Your task to perform on an android device: turn on bluetooth scan Image 0: 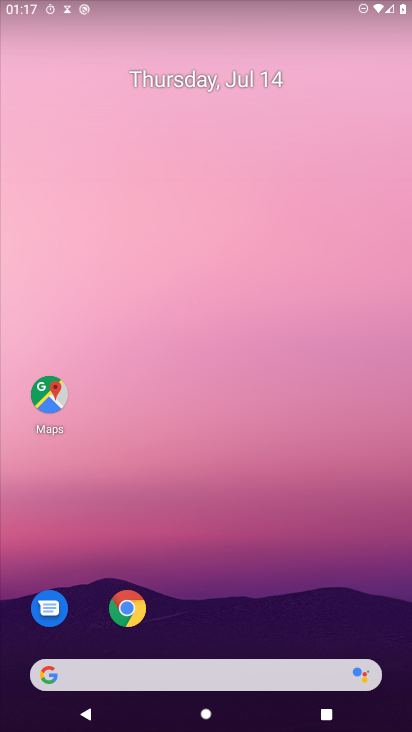
Step 0: press home button
Your task to perform on an android device: turn on bluetooth scan Image 1: 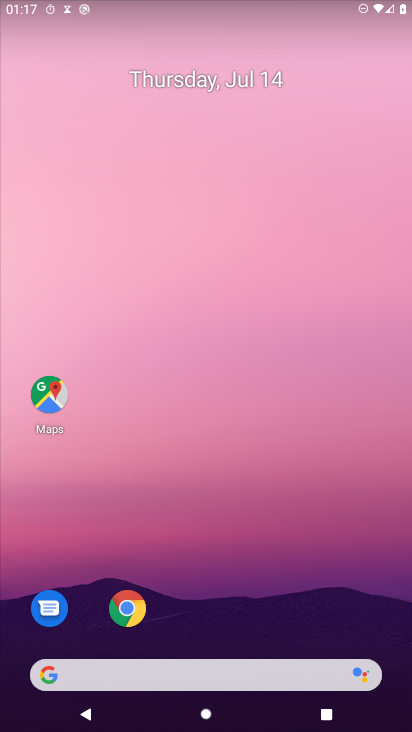
Step 1: drag from (271, 611) to (285, 67)
Your task to perform on an android device: turn on bluetooth scan Image 2: 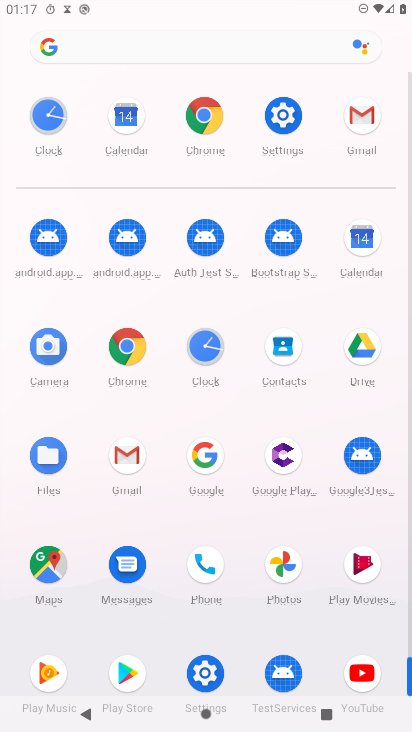
Step 2: click (287, 106)
Your task to perform on an android device: turn on bluetooth scan Image 3: 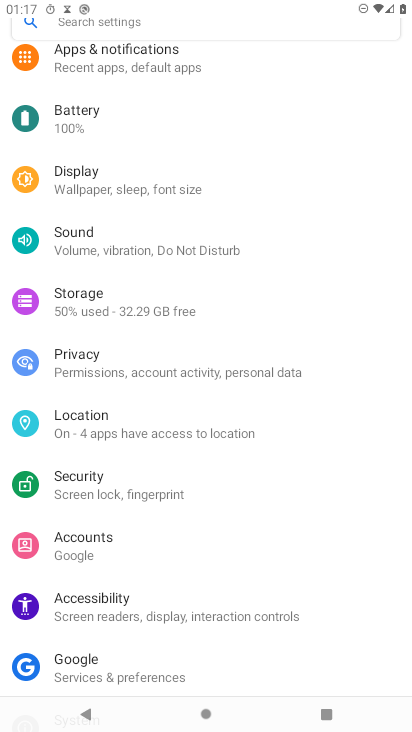
Step 3: click (131, 428)
Your task to perform on an android device: turn on bluetooth scan Image 4: 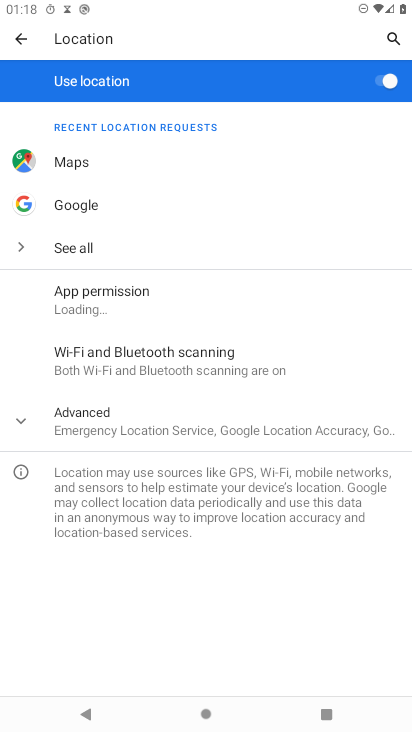
Step 4: click (179, 360)
Your task to perform on an android device: turn on bluetooth scan Image 5: 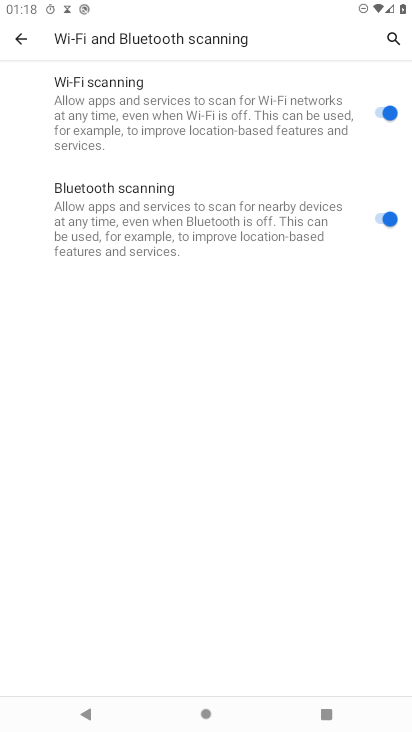
Step 5: task complete